Your task to perform on an android device: Open network settings Image 0: 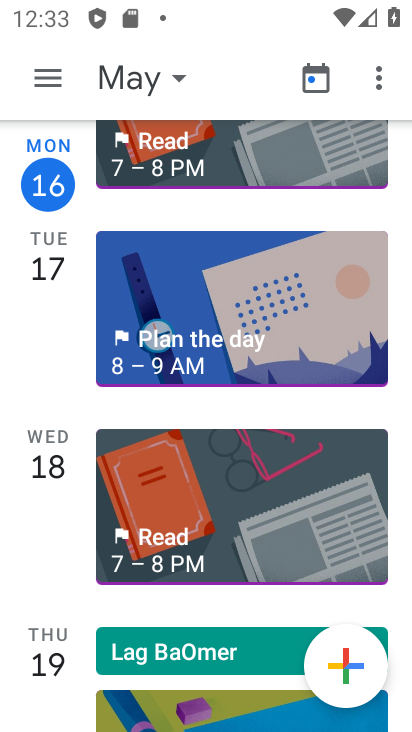
Step 0: press home button
Your task to perform on an android device: Open network settings Image 1: 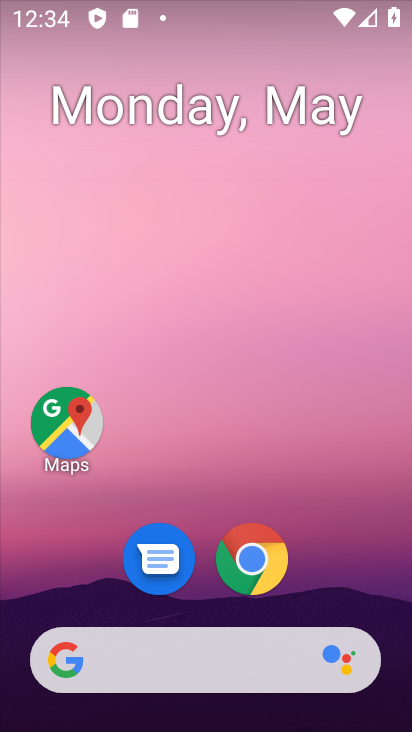
Step 1: drag from (232, 724) to (317, 0)
Your task to perform on an android device: Open network settings Image 2: 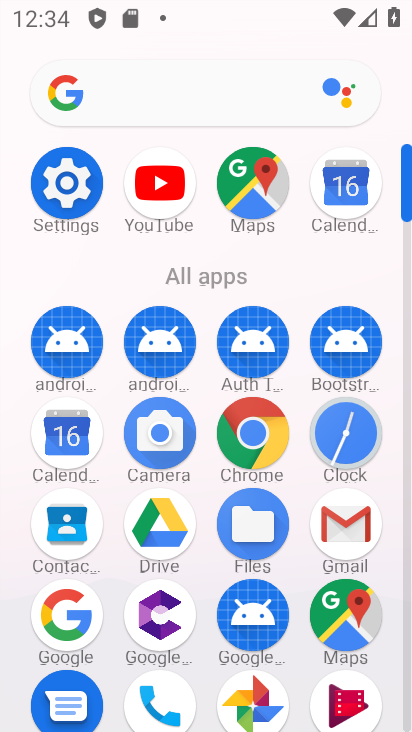
Step 2: click (86, 173)
Your task to perform on an android device: Open network settings Image 3: 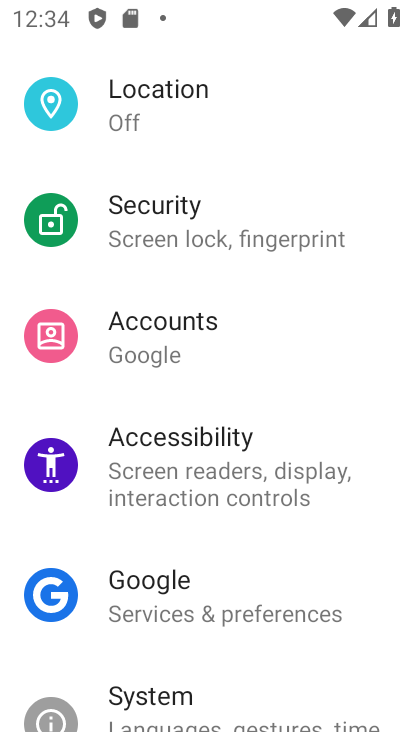
Step 3: drag from (325, 141) to (341, 717)
Your task to perform on an android device: Open network settings Image 4: 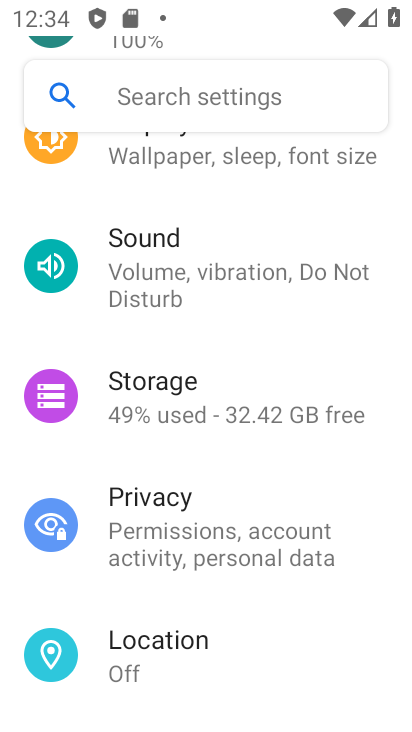
Step 4: drag from (280, 212) to (225, 707)
Your task to perform on an android device: Open network settings Image 5: 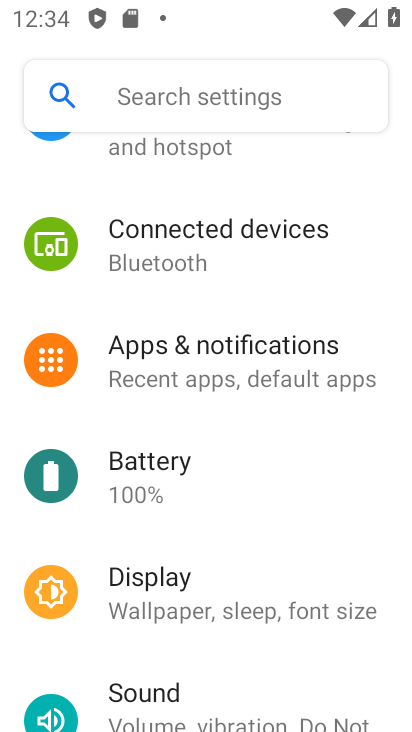
Step 5: drag from (286, 280) to (236, 715)
Your task to perform on an android device: Open network settings Image 6: 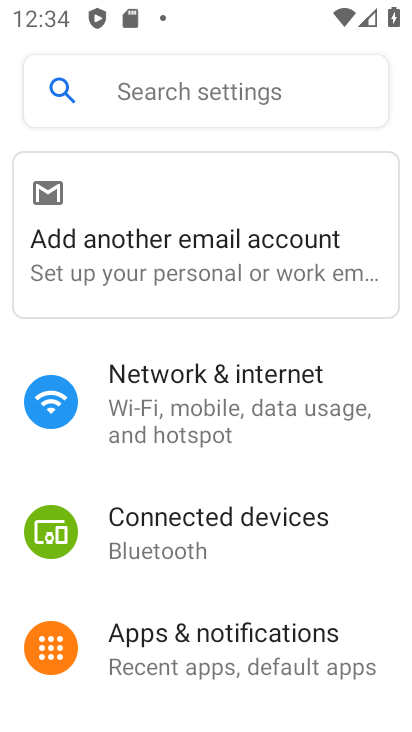
Step 6: click (280, 428)
Your task to perform on an android device: Open network settings Image 7: 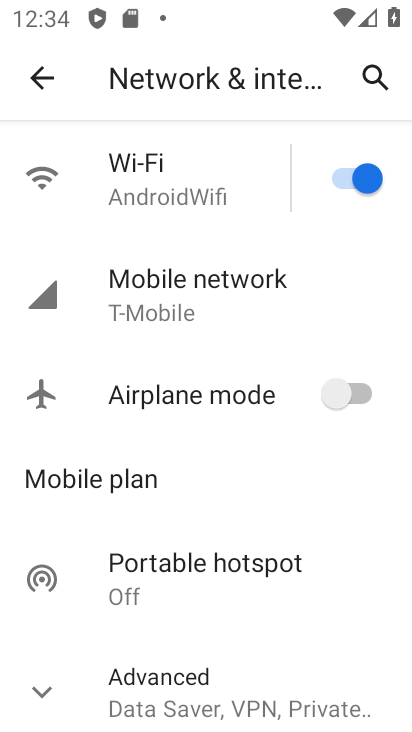
Step 7: task complete